Your task to perform on an android device: Do I have any events today? Image 0: 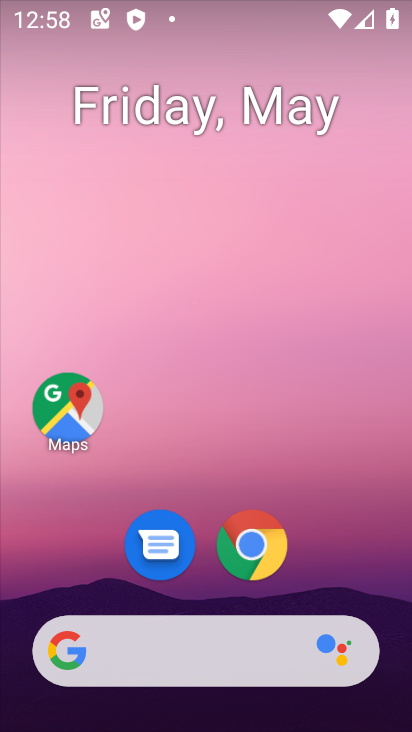
Step 0: click (160, 103)
Your task to perform on an android device: Do I have any events today? Image 1: 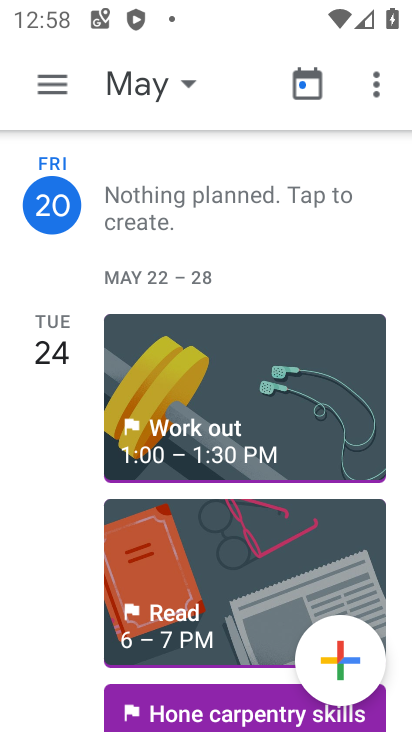
Step 1: click (53, 85)
Your task to perform on an android device: Do I have any events today? Image 2: 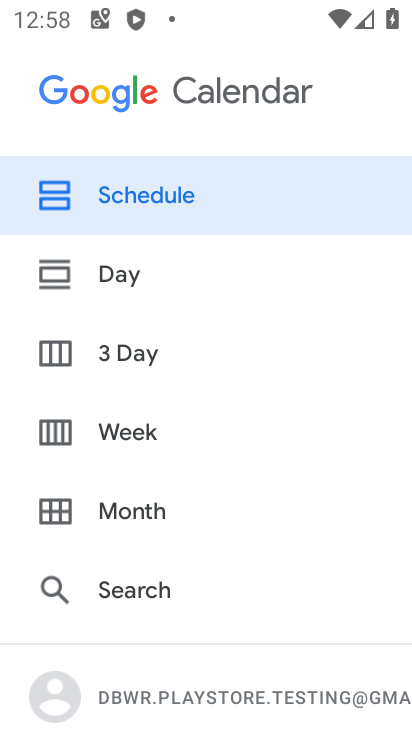
Step 2: drag from (252, 630) to (228, 181)
Your task to perform on an android device: Do I have any events today? Image 3: 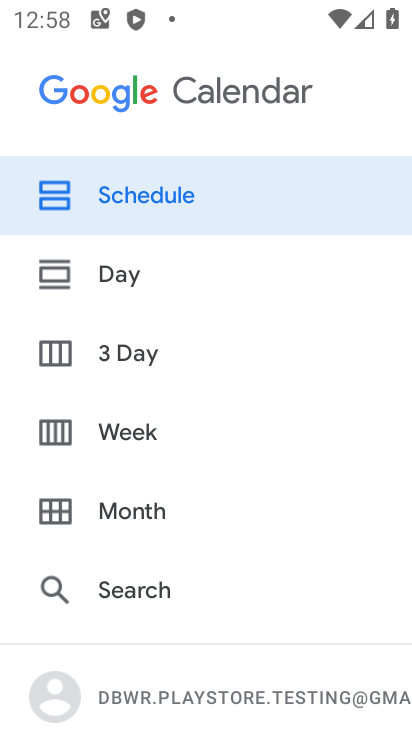
Step 3: drag from (252, 582) to (234, 302)
Your task to perform on an android device: Do I have any events today? Image 4: 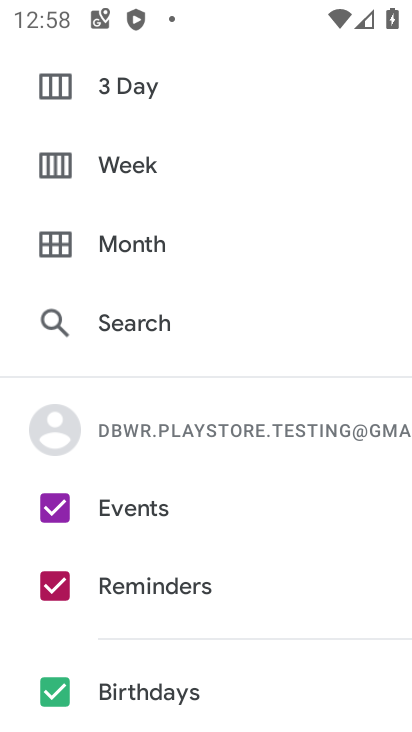
Step 4: drag from (283, 614) to (264, 213)
Your task to perform on an android device: Do I have any events today? Image 5: 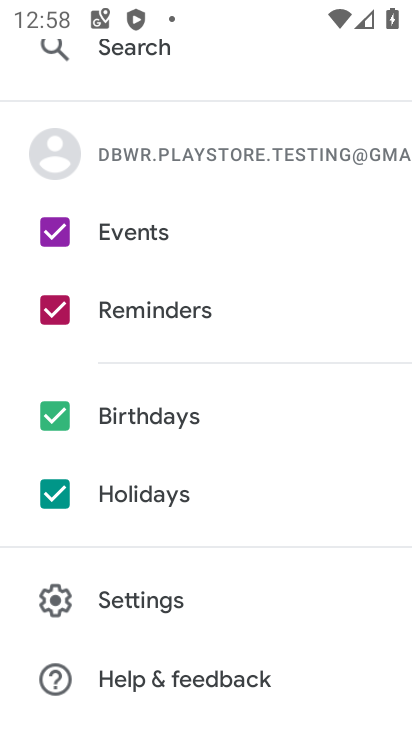
Step 5: click (55, 489)
Your task to perform on an android device: Do I have any events today? Image 6: 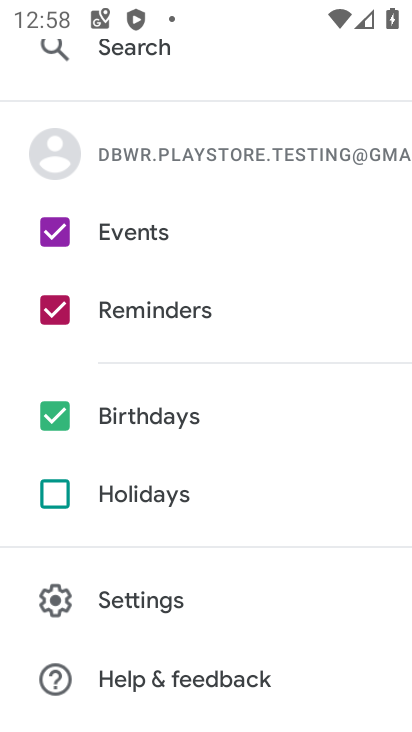
Step 6: click (59, 408)
Your task to perform on an android device: Do I have any events today? Image 7: 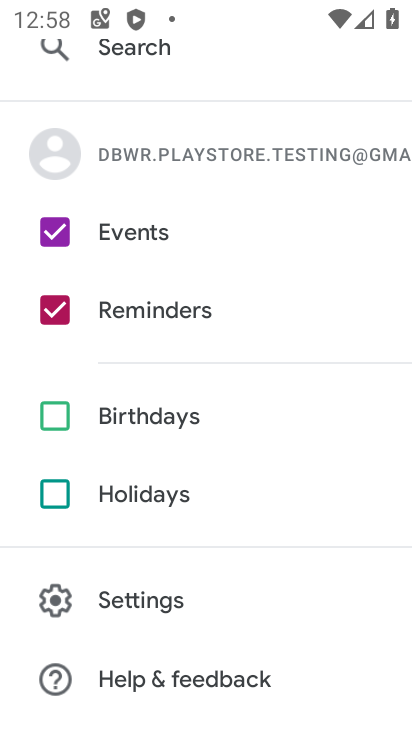
Step 7: click (60, 298)
Your task to perform on an android device: Do I have any events today? Image 8: 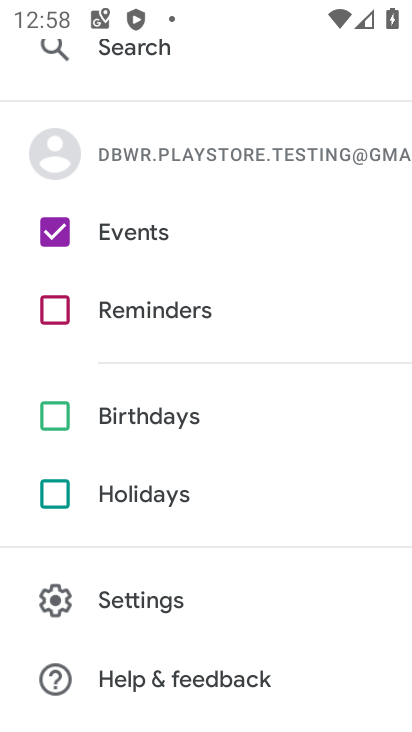
Step 8: drag from (275, 128) to (291, 604)
Your task to perform on an android device: Do I have any events today? Image 9: 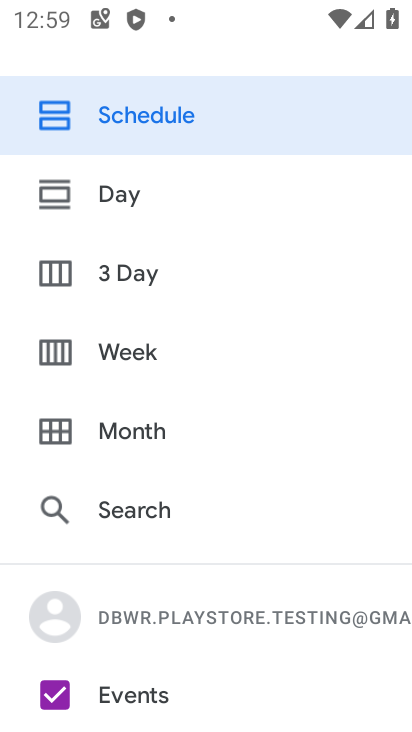
Step 9: click (298, 136)
Your task to perform on an android device: Do I have any events today? Image 10: 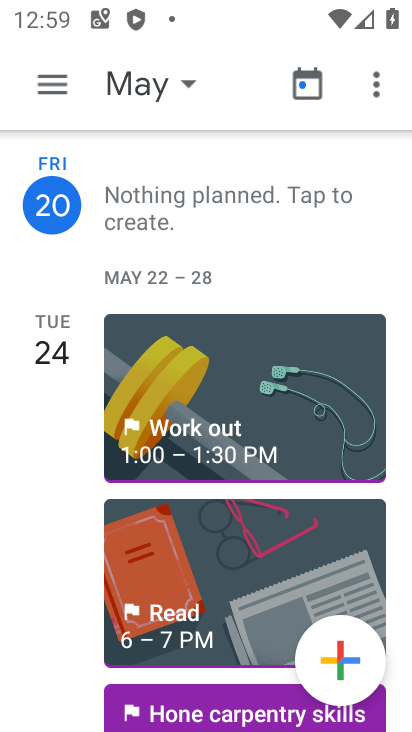
Step 10: task complete